Your task to perform on an android device: empty trash in google photos Image 0: 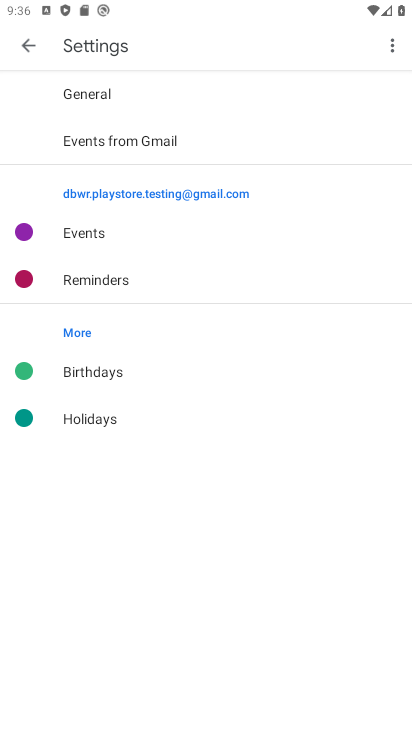
Step 0: press home button
Your task to perform on an android device: empty trash in google photos Image 1: 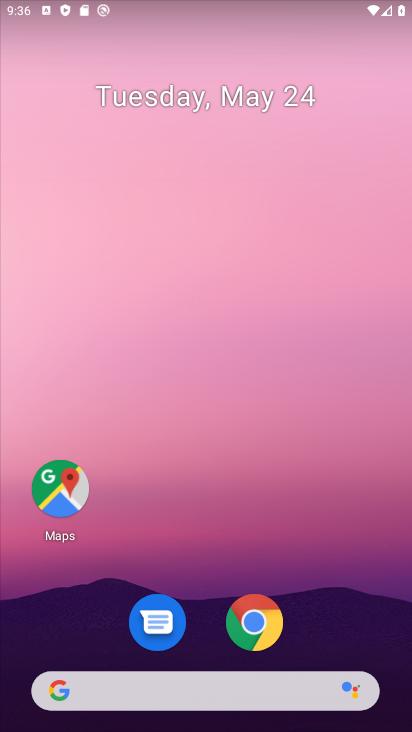
Step 1: drag from (170, 710) to (368, 106)
Your task to perform on an android device: empty trash in google photos Image 2: 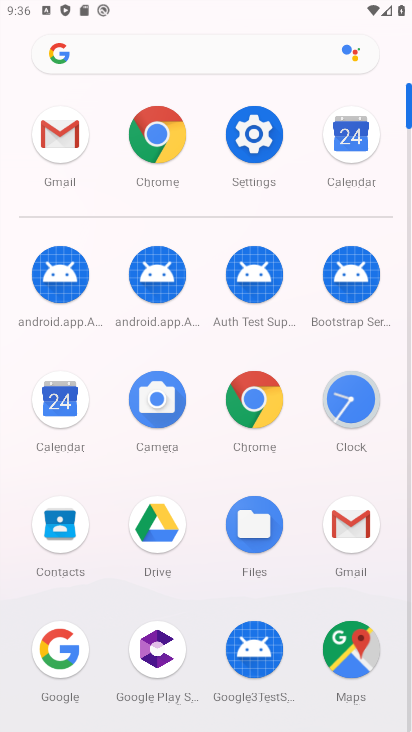
Step 2: drag from (106, 465) to (143, 297)
Your task to perform on an android device: empty trash in google photos Image 3: 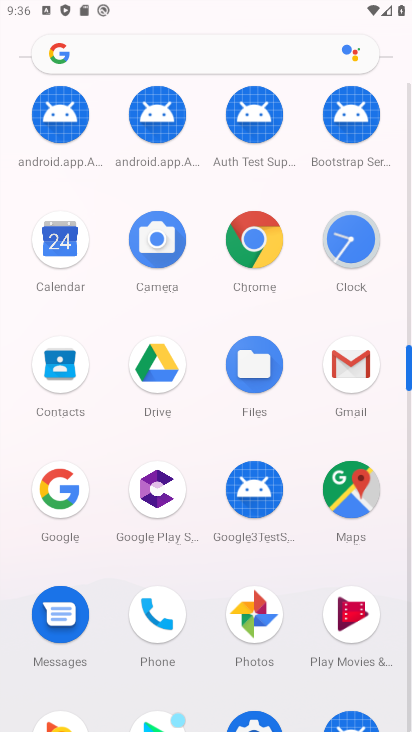
Step 3: click (244, 598)
Your task to perform on an android device: empty trash in google photos Image 4: 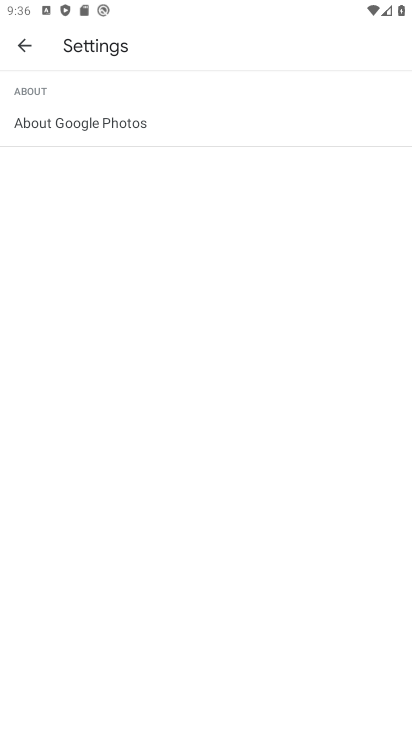
Step 4: click (28, 37)
Your task to perform on an android device: empty trash in google photos Image 5: 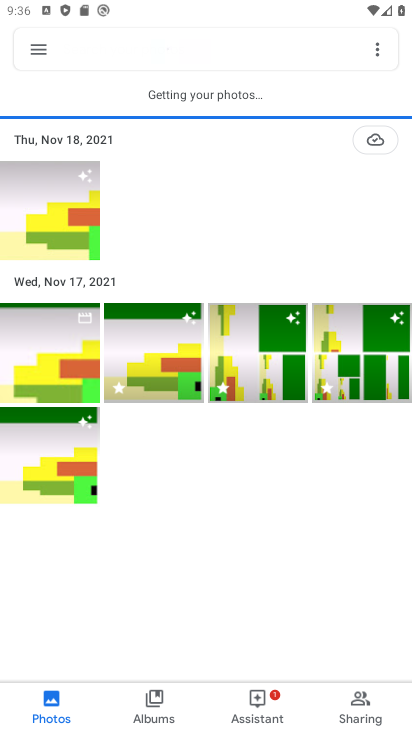
Step 5: click (26, 51)
Your task to perform on an android device: empty trash in google photos Image 6: 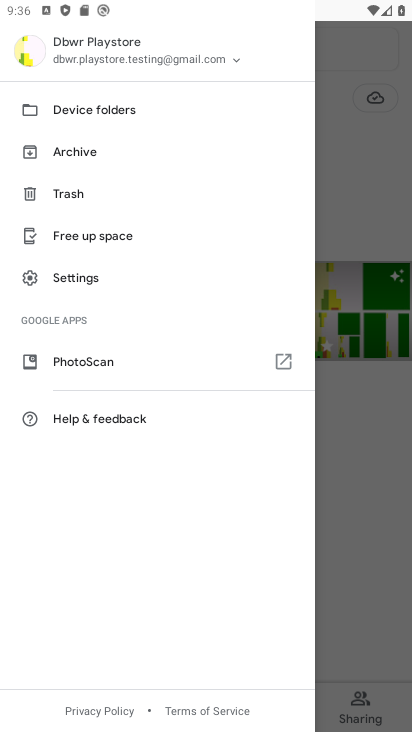
Step 6: click (90, 196)
Your task to perform on an android device: empty trash in google photos Image 7: 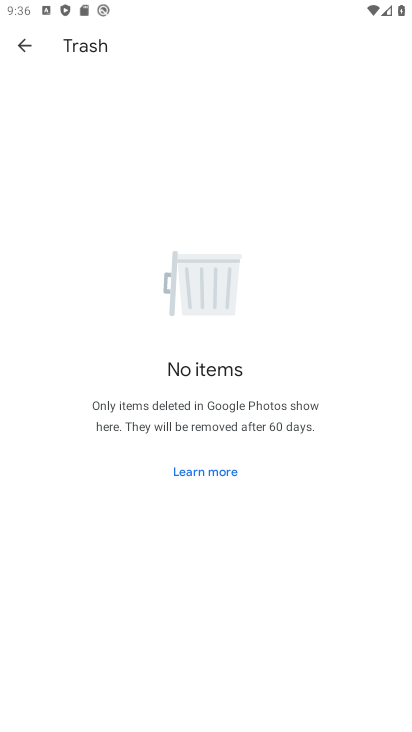
Step 7: task complete